Your task to perform on an android device: What is the recent news? Image 0: 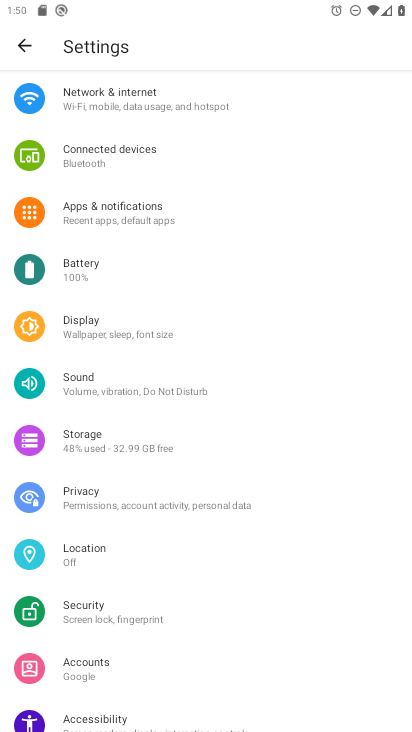
Step 0: press home button
Your task to perform on an android device: What is the recent news? Image 1: 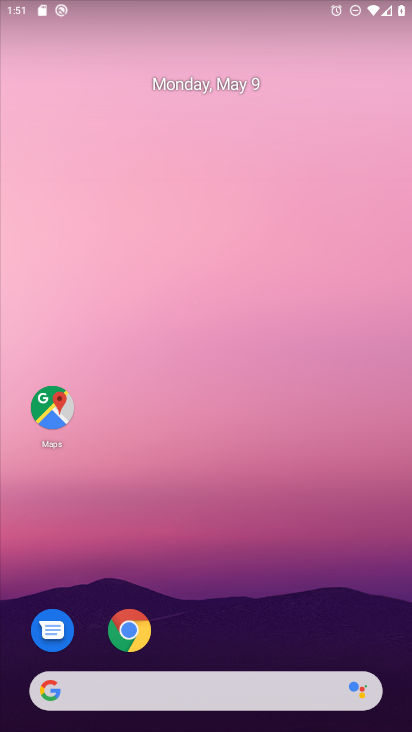
Step 1: drag from (296, 722) to (265, 164)
Your task to perform on an android device: What is the recent news? Image 2: 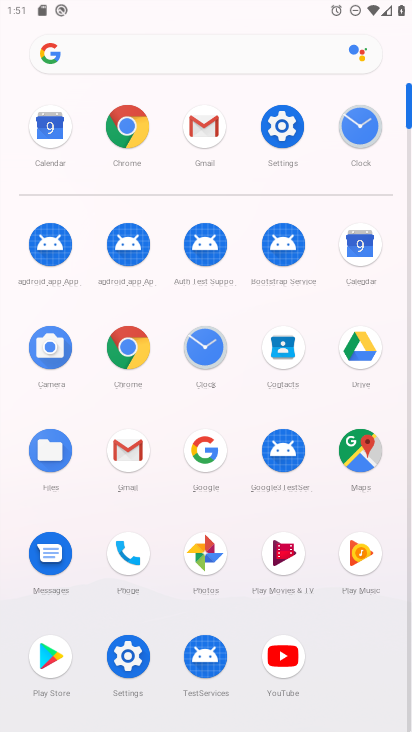
Step 2: click (145, 69)
Your task to perform on an android device: What is the recent news? Image 3: 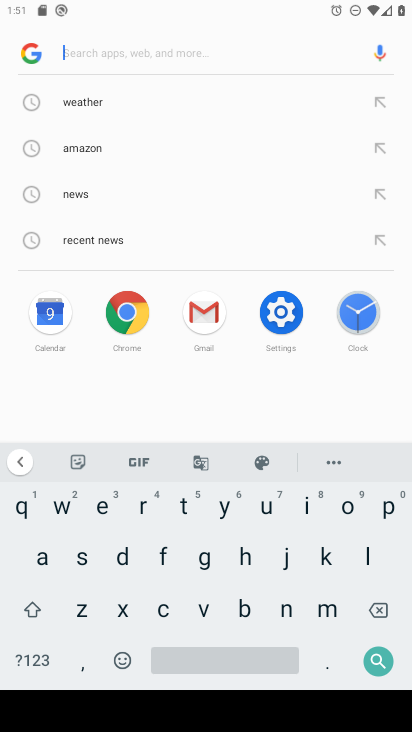
Step 3: click (96, 231)
Your task to perform on an android device: What is the recent news? Image 4: 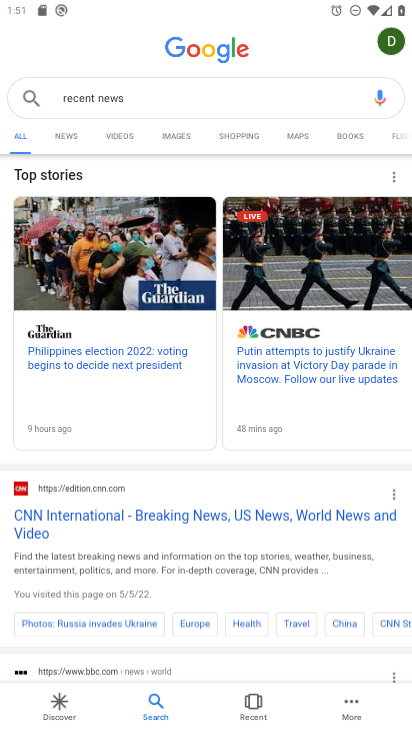
Step 4: task complete